Your task to perform on an android device: turn on translation in the chrome app Image 0: 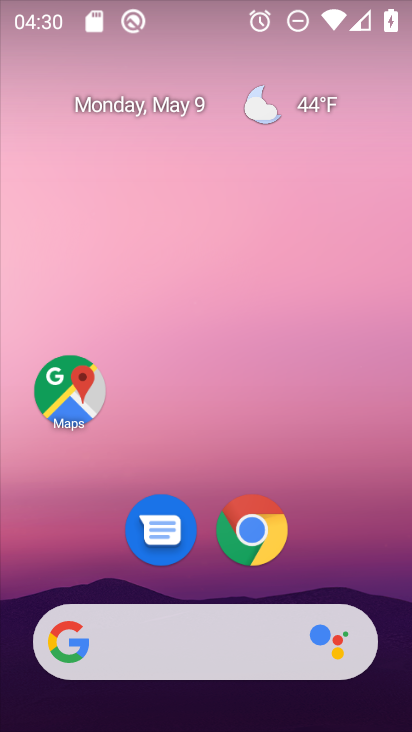
Step 0: click (250, 527)
Your task to perform on an android device: turn on translation in the chrome app Image 1: 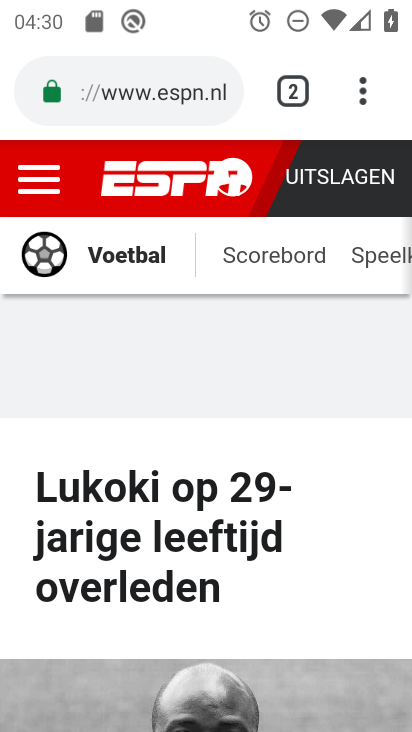
Step 1: click (362, 78)
Your task to perform on an android device: turn on translation in the chrome app Image 2: 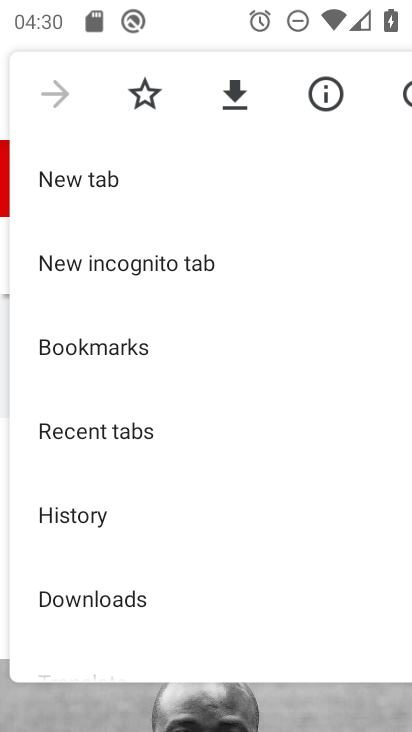
Step 2: drag from (211, 570) to (239, 177)
Your task to perform on an android device: turn on translation in the chrome app Image 3: 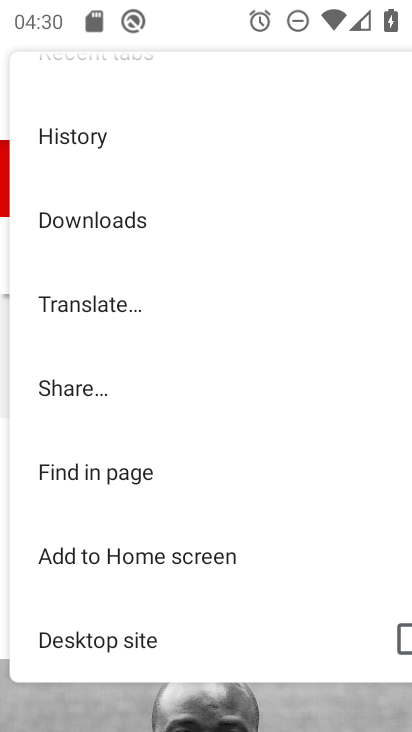
Step 3: drag from (166, 588) to (173, 357)
Your task to perform on an android device: turn on translation in the chrome app Image 4: 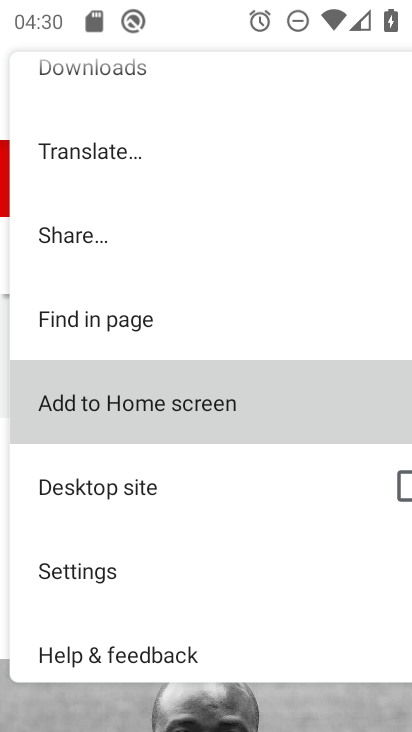
Step 4: drag from (184, 246) to (188, 210)
Your task to perform on an android device: turn on translation in the chrome app Image 5: 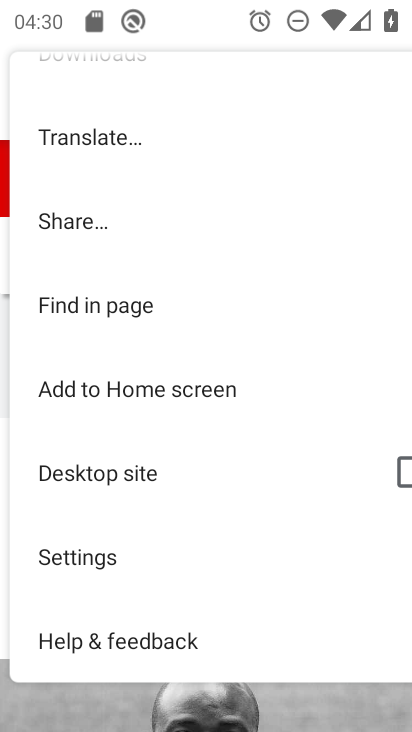
Step 5: click (131, 551)
Your task to perform on an android device: turn on translation in the chrome app Image 6: 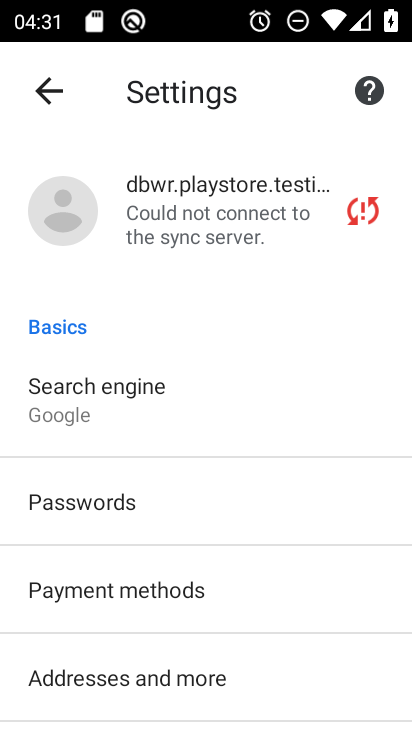
Step 6: drag from (266, 676) to (254, 316)
Your task to perform on an android device: turn on translation in the chrome app Image 7: 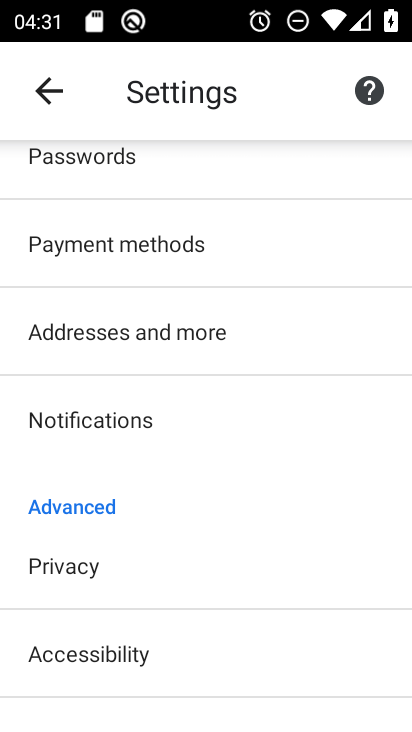
Step 7: drag from (185, 681) to (203, 250)
Your task to perform on an android device: turn on translation in the chrome app Image 8: 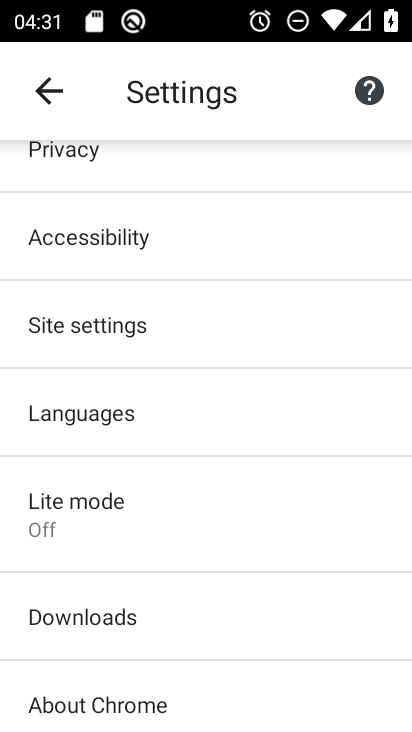
Step 8: click (152, 406)
Your task to perform on an android device: turn on translation in the chrome app Image 9: 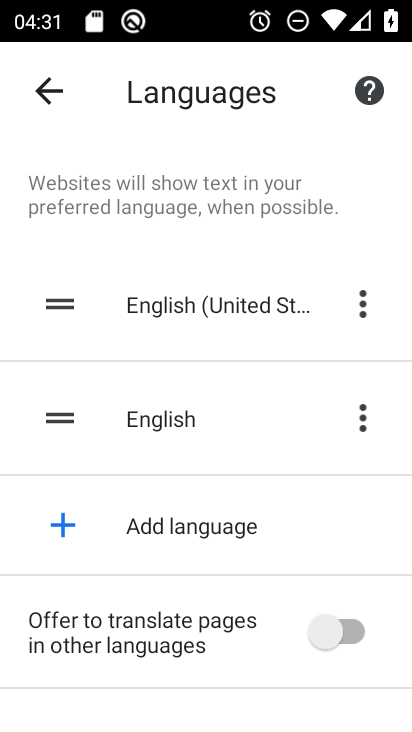
Step 9: click (356, 632)
Your task to perform on an android device: turn on translation in the chrome app Image 10: 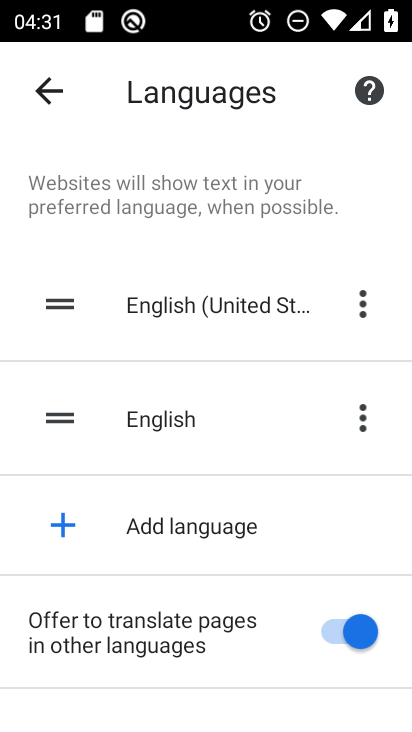
Step 10: task complete